Your task to perform on an android device: Go to Google Image 0: 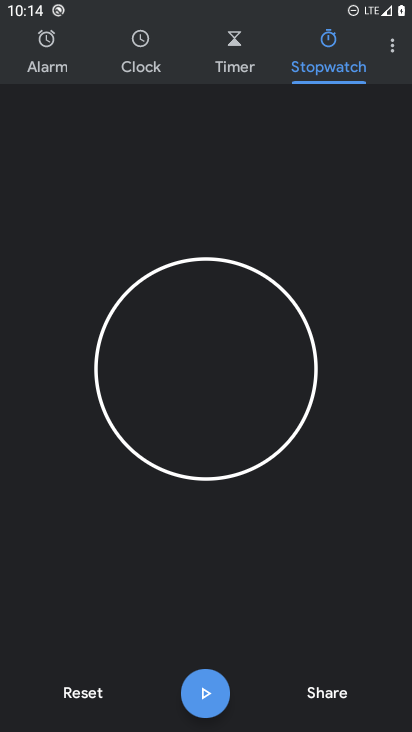
Step 0: press home button
Your task to perform on an android device: Go to Google Image 1: 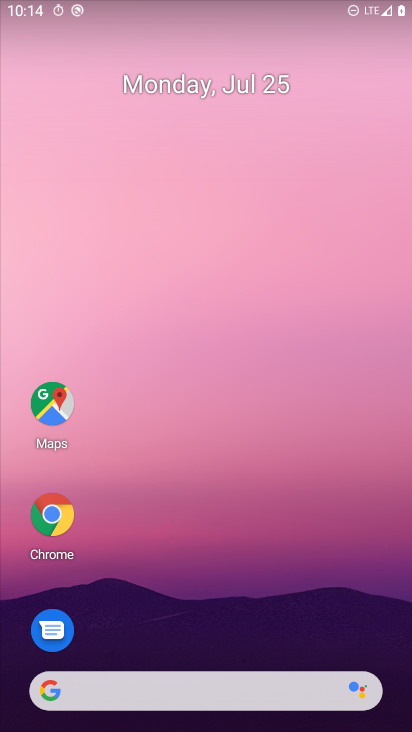
Step 1: click (113, 693)
Your task to perform on an android device: Go to Google Image 2: 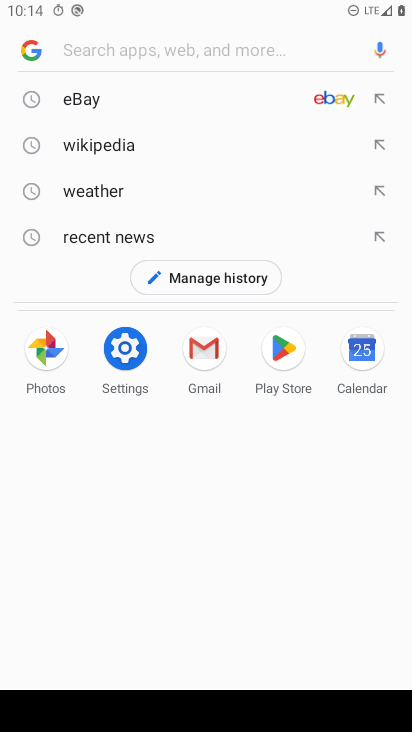
Step 2: task complete